Your task to perform on an android device: Add razer naga to the cart on bestbuy Image 0: 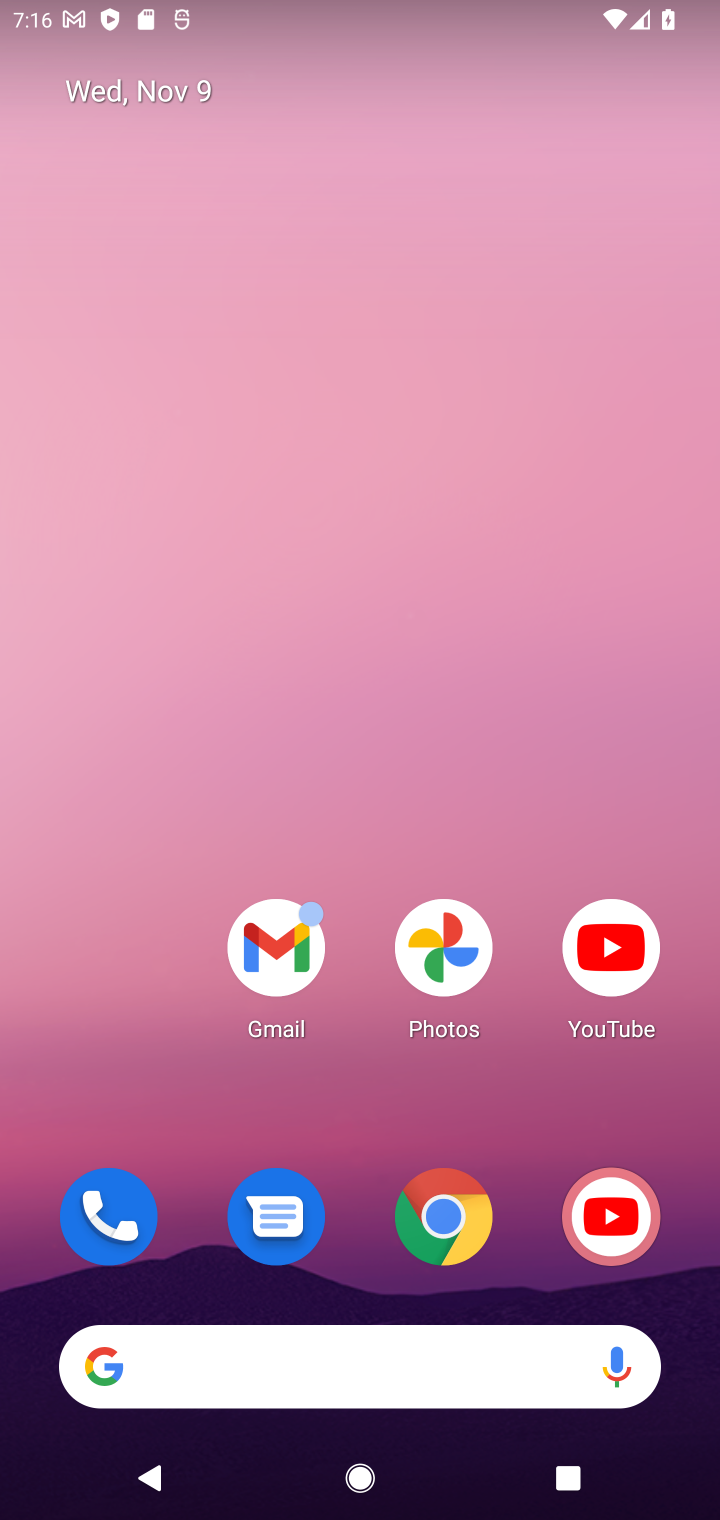
Step 0: drag from (381, 949) to (463, 164)
Your task to perform on an android device: Add razer naga to the cart on bestbuy Image 1: 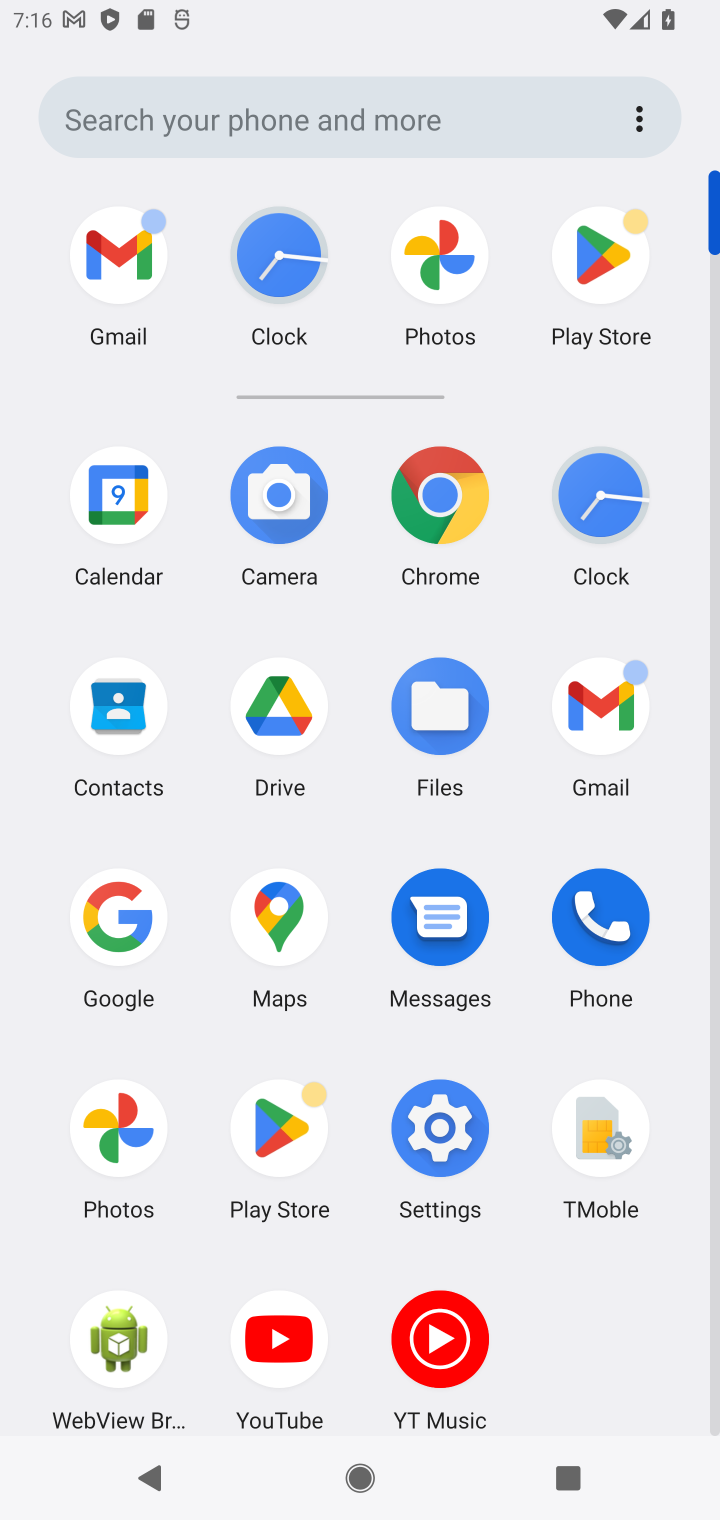
Step 1: click (451, 496)
Your task to perform on an android device: Add razer naga to the cart on bestbuy Image 2: 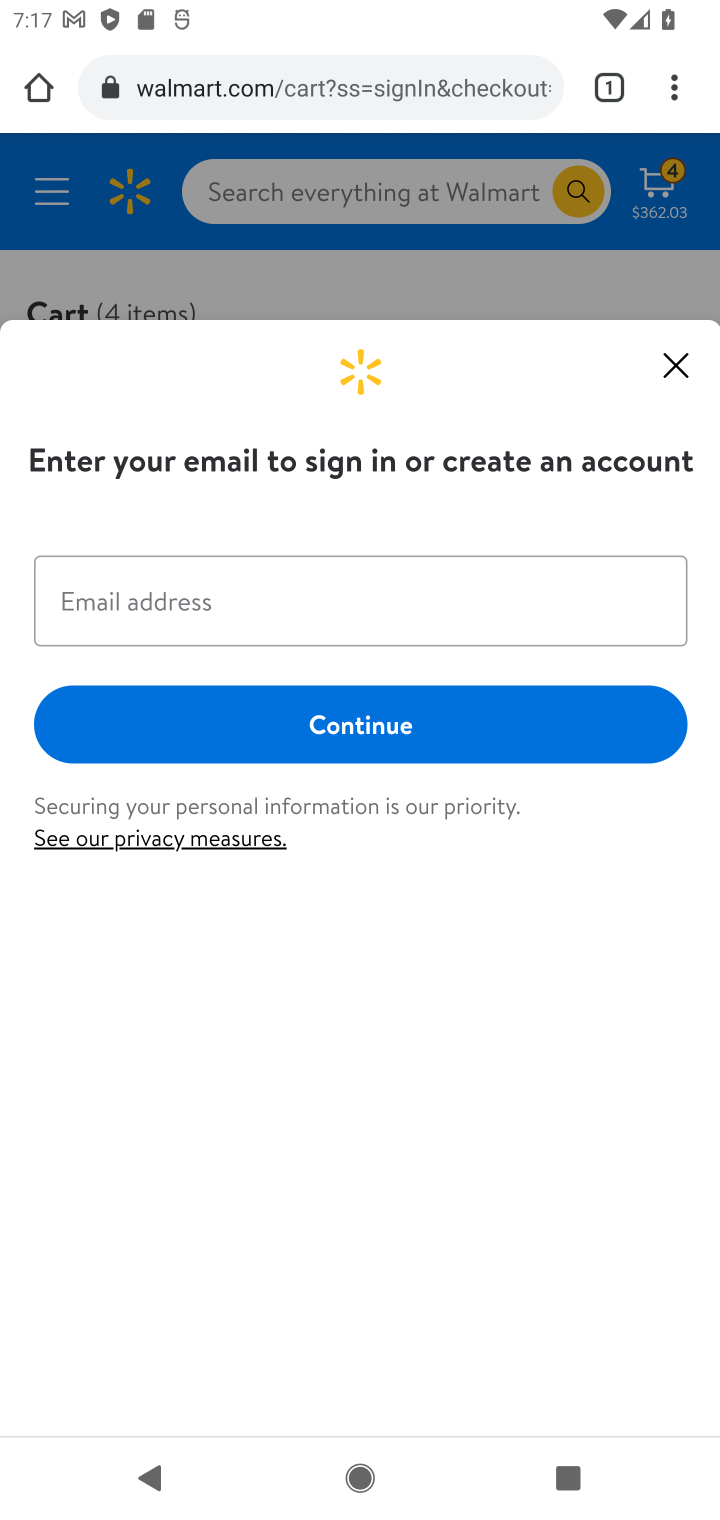
Step 2: click (478, 108)
Your task to perform on an android device: Add razer naga to the cart on bestbuy Image 3: 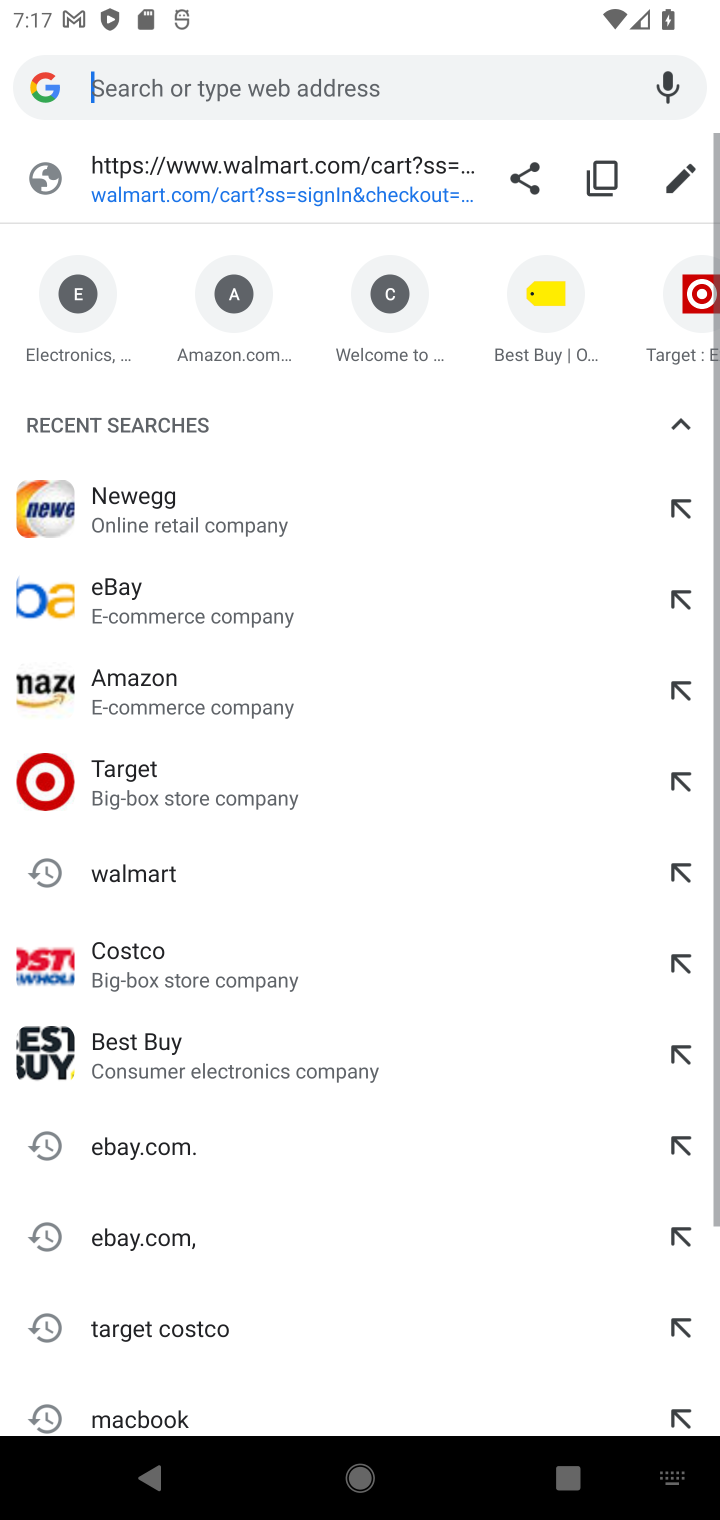
Step 3: type ""
Your task to perform on an android device: Add razer naga to the cart on bestbuy Image 4: 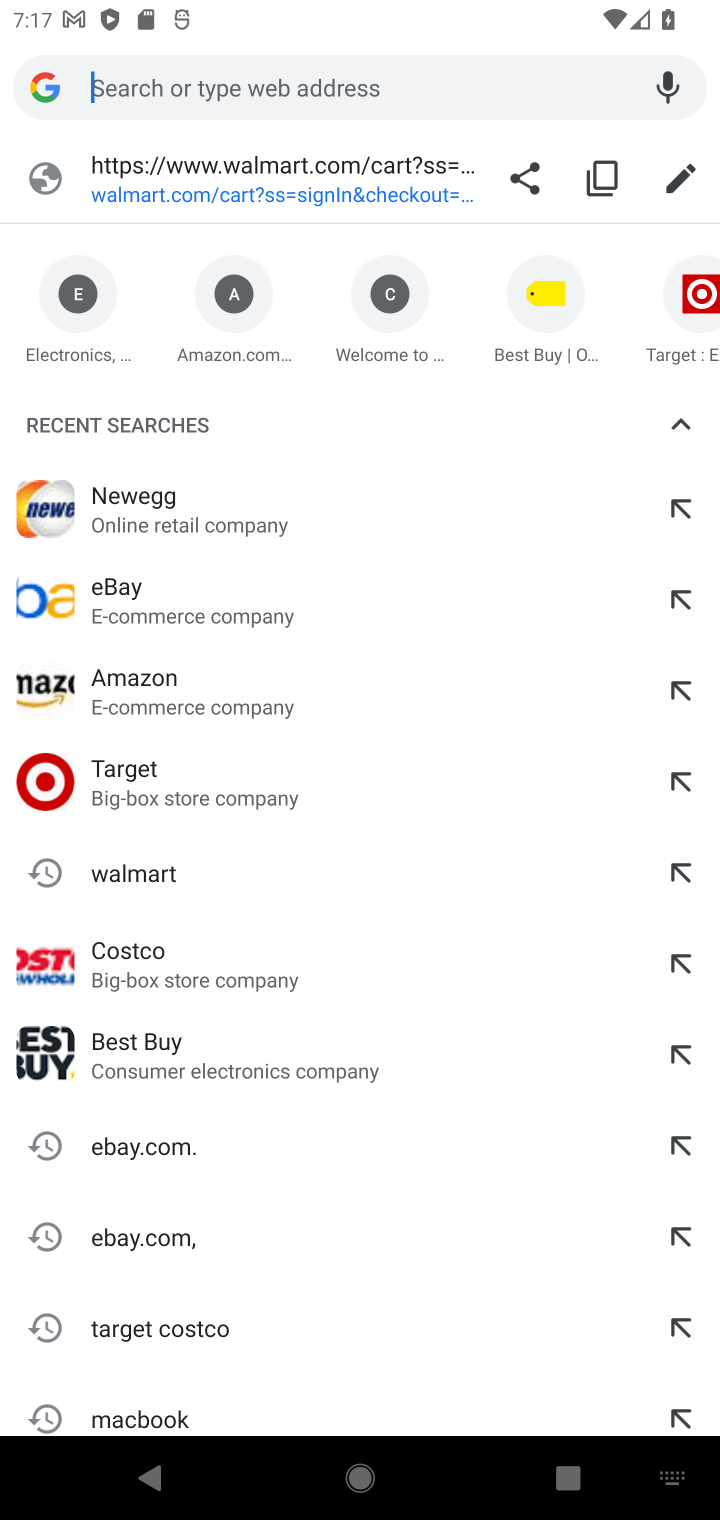
Step 4: type "bestbuy.com"
Your task to perform on an android device: Add razer naga to the cart on bestbuy Image 5: 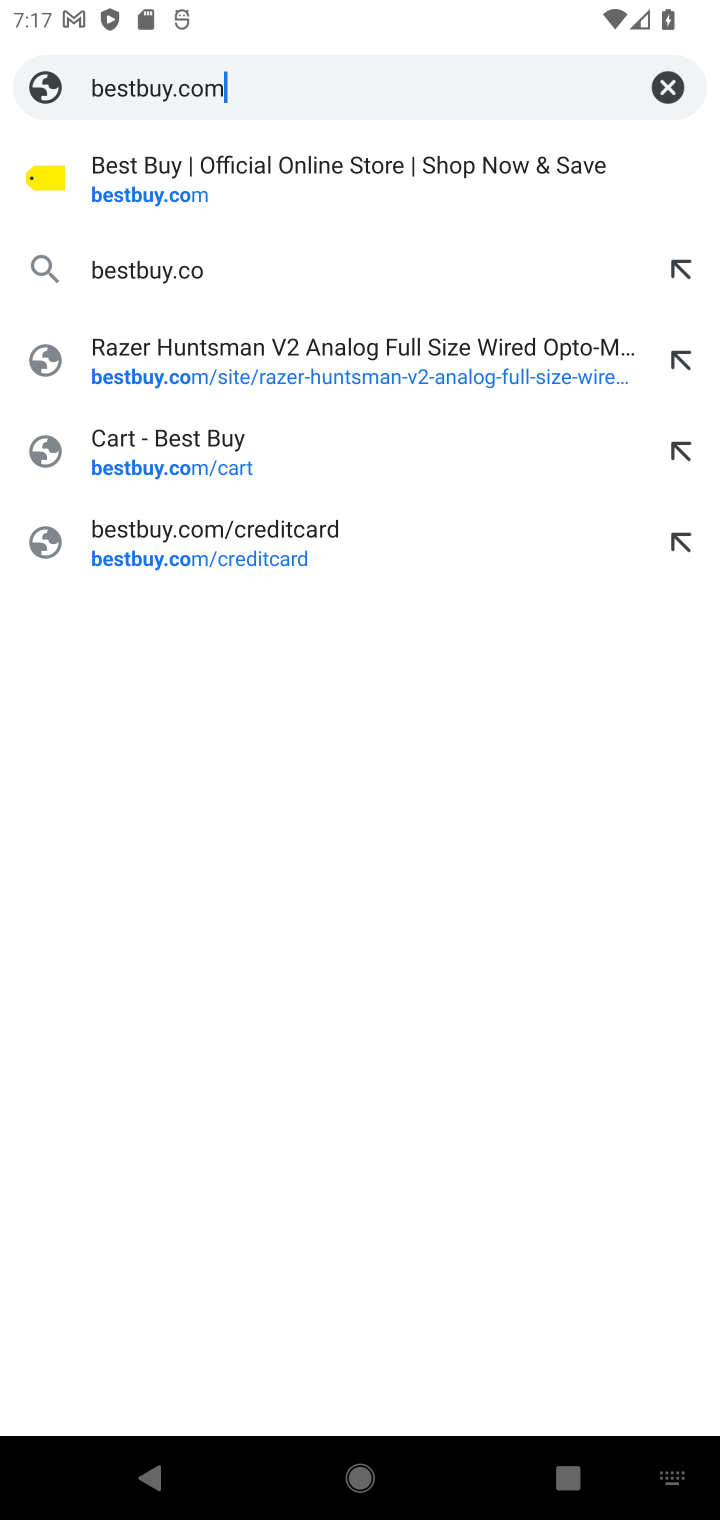
Step 5: press enter
Your task to perform on an android device: Add razer naga to the cart on bestbuy Image 6: 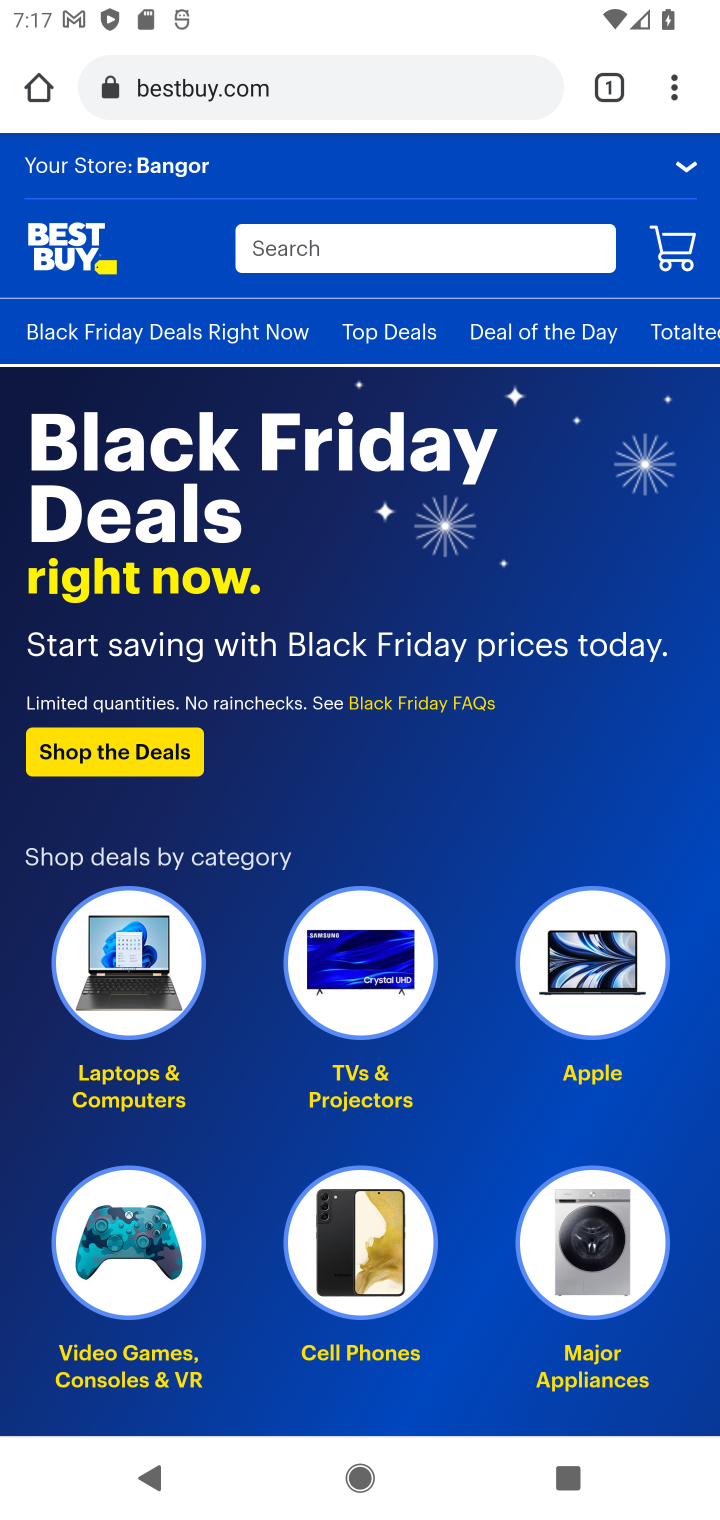
Step 6: click (467, 242)
Your task to perform on an android device: Add razer naga to the cart on bestbuy Image 7: 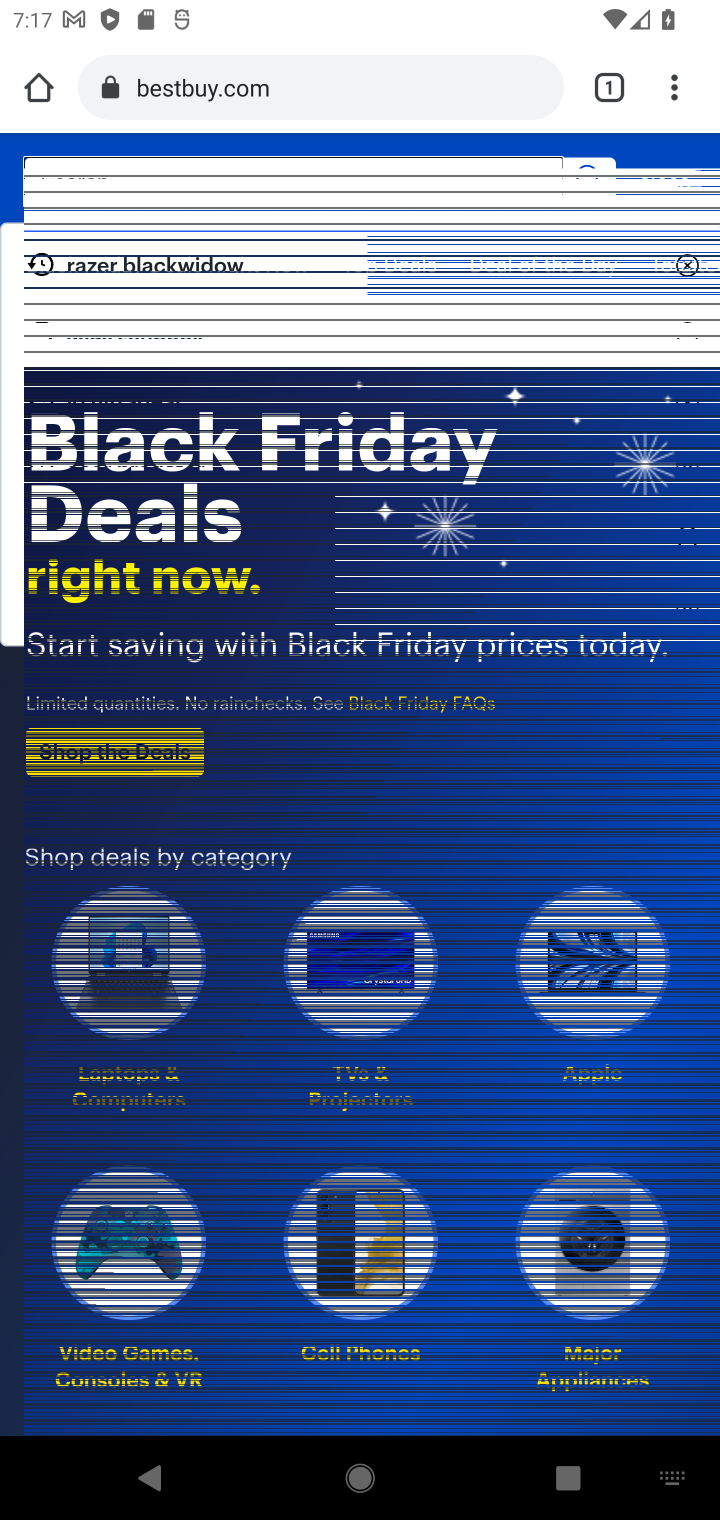
Step 7: type "razer naga"
Your task to perform on an android device: Add razer naga to the cart on bestbuy Image 8: 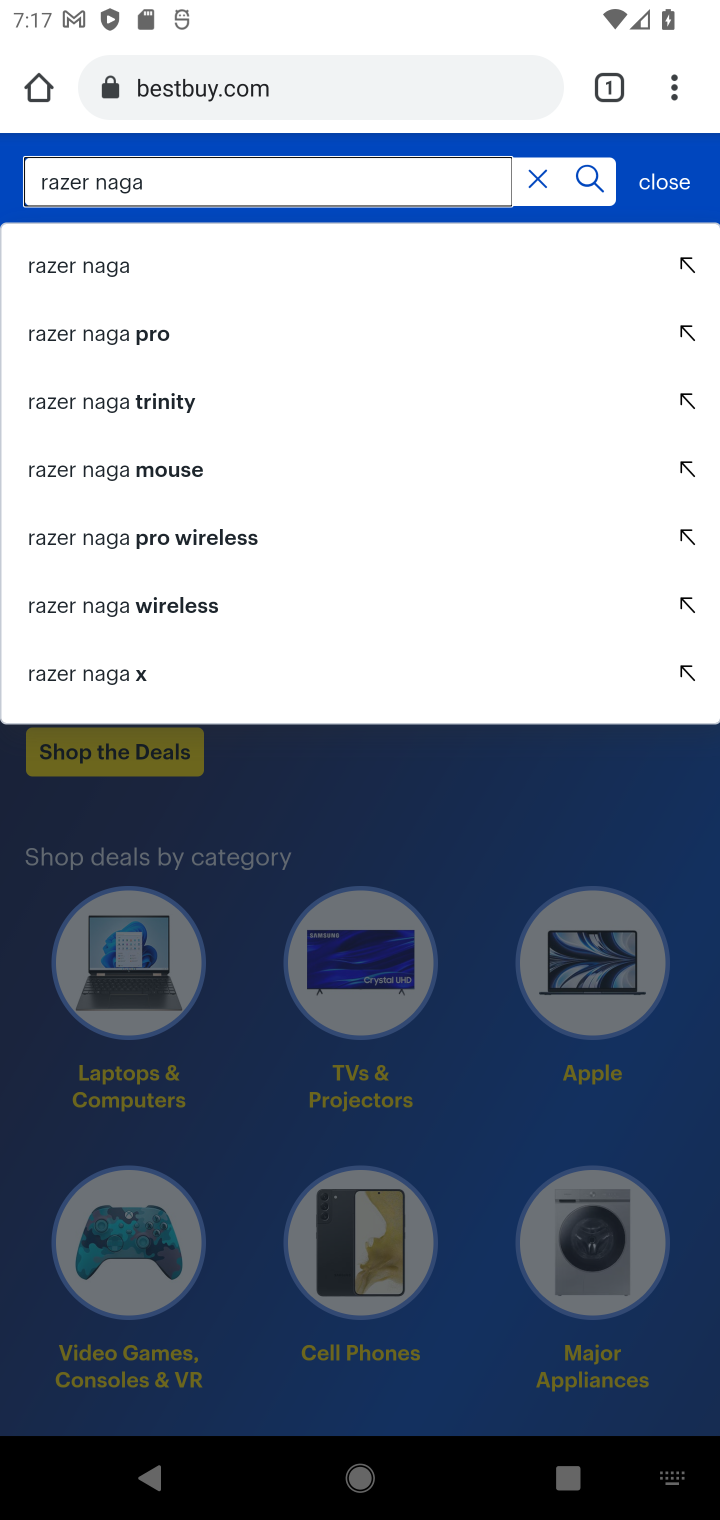
Step 8: press enter
Your task to perform on an android device: Add razer naga to the cart on bestbuy Image 9: 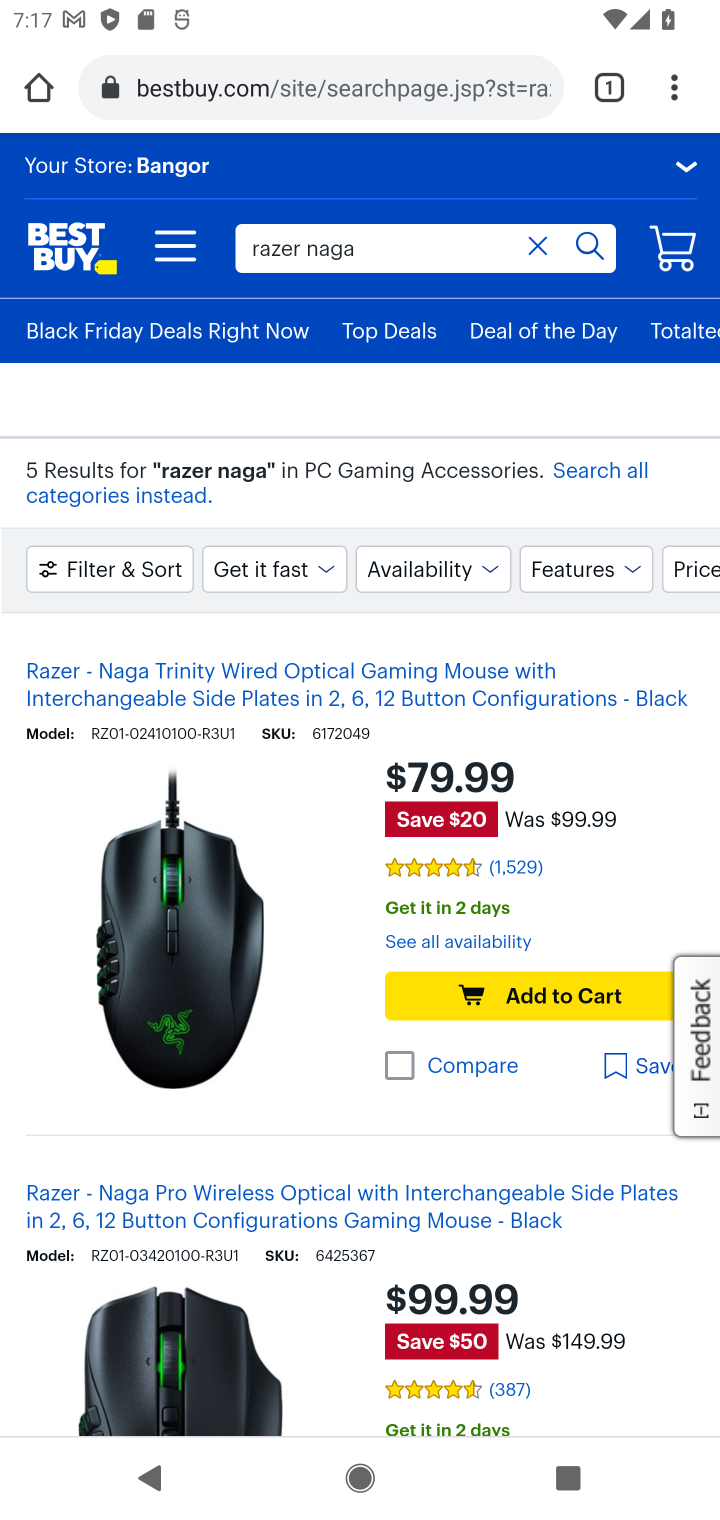
Step 9: click (537, 998)
Your task to perform on an android device: Add razer naga to the cart on bestbuy Image 10: 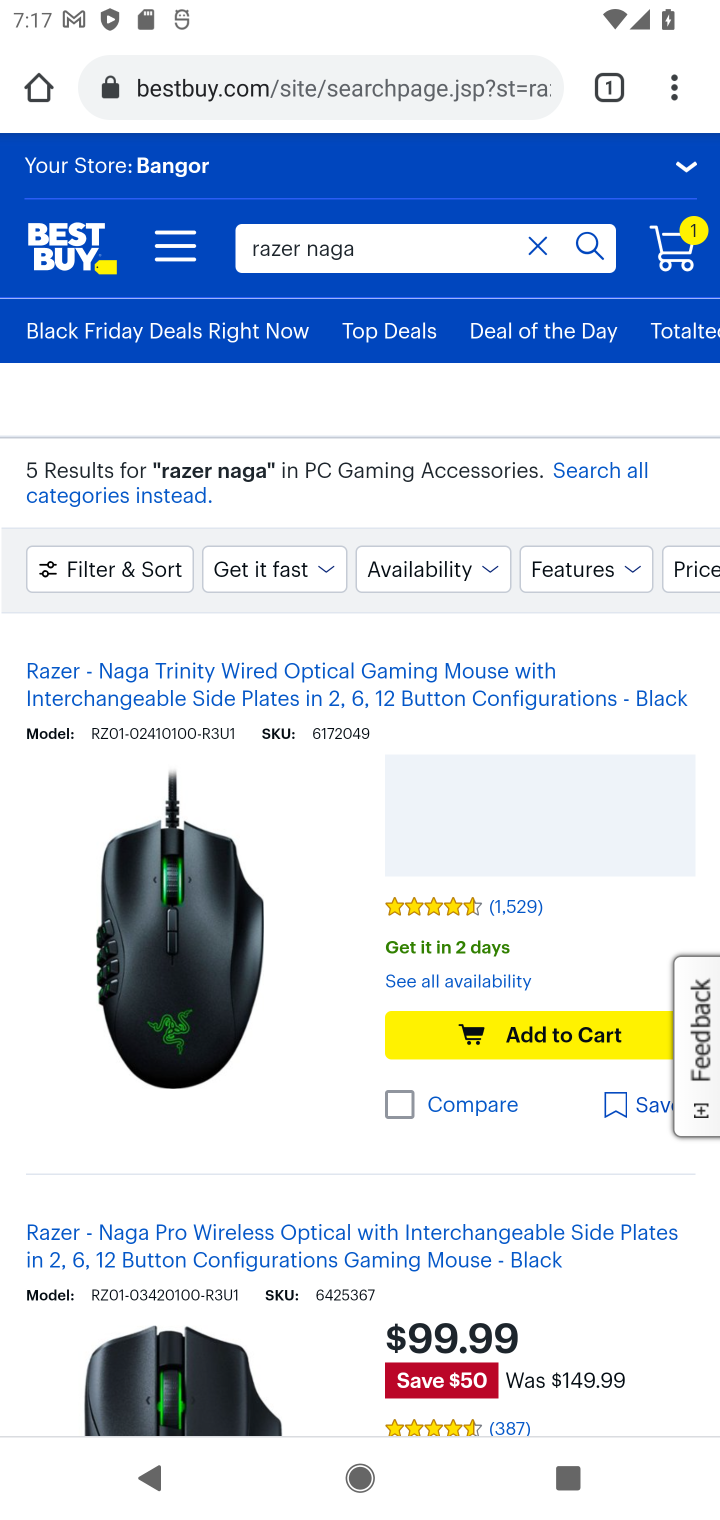
Step 10: task complete